Your task to perform on an android device: clear history in the chrome app Image 0: 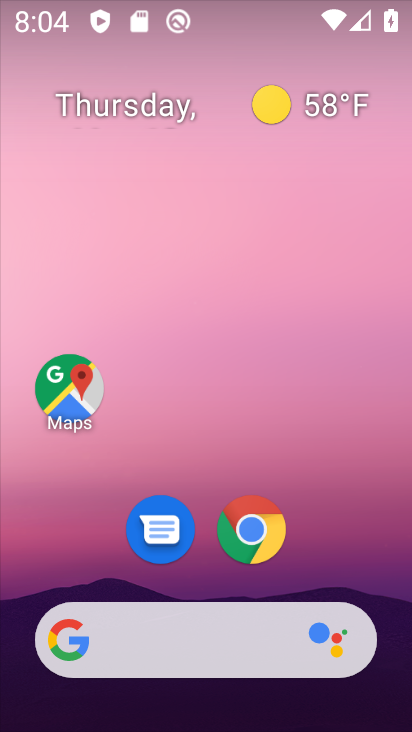
Step 0: click (250, 533)
Your task to perform on an android device: clear history in the chrome app Image 1: 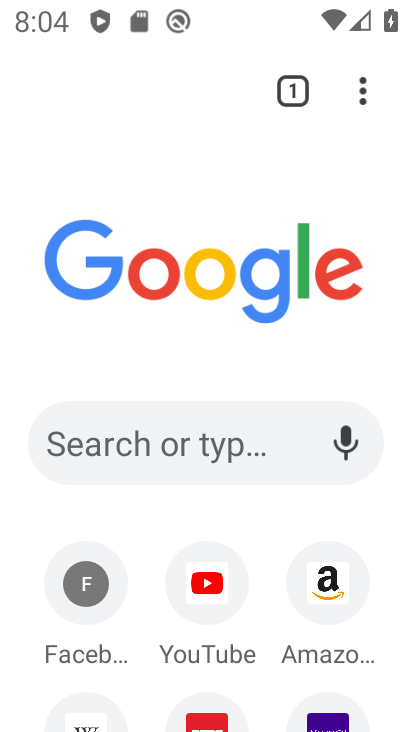
Step 1: click (356, 97)
Your task to perform on an android device: clear history in the chrome app Image 2: 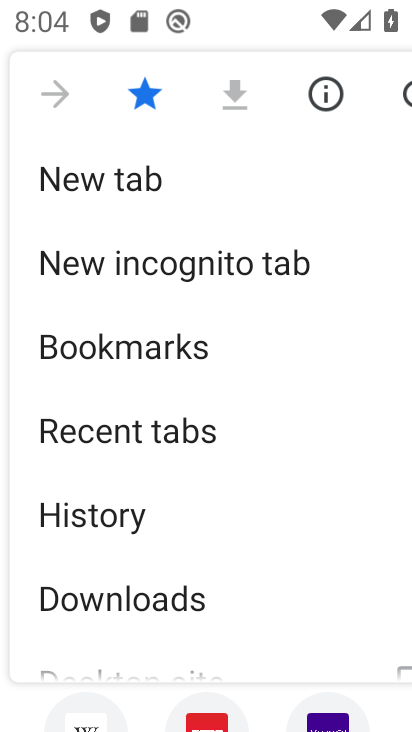
Step 2: drag from (263, 624) to (252, 553)
Your task to perform on an android device: clear history in the chrome app Image 3: 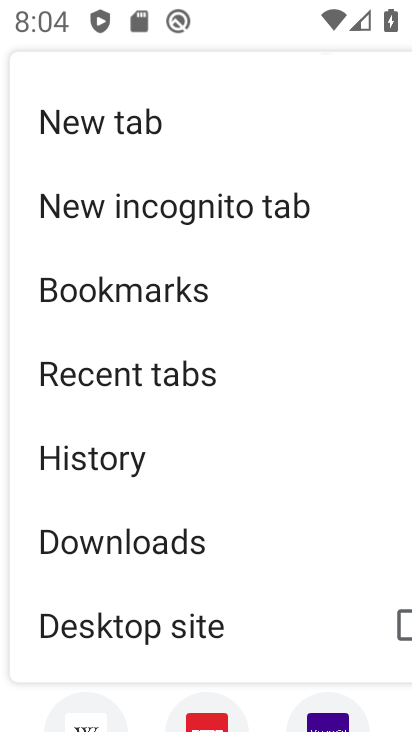
Step 3: click (104, 466)
Your task to perform on an android device: clear history in the chrome app Image 4: 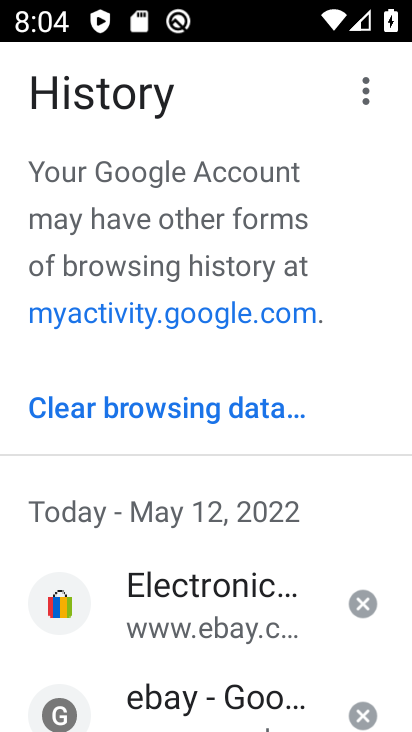
Step 4: click (179, 415)
Your task to perform on an android device: clear history in the chrome app Image 5: 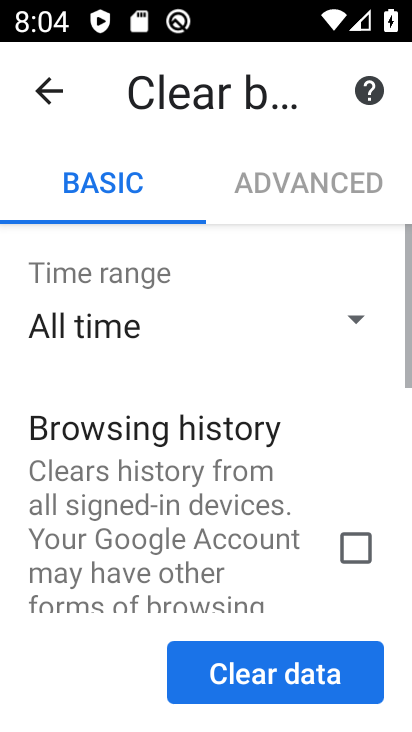
Step 5: click (352, 551)
Your task to perform on an android device: clear history in the chrome app Image 6: 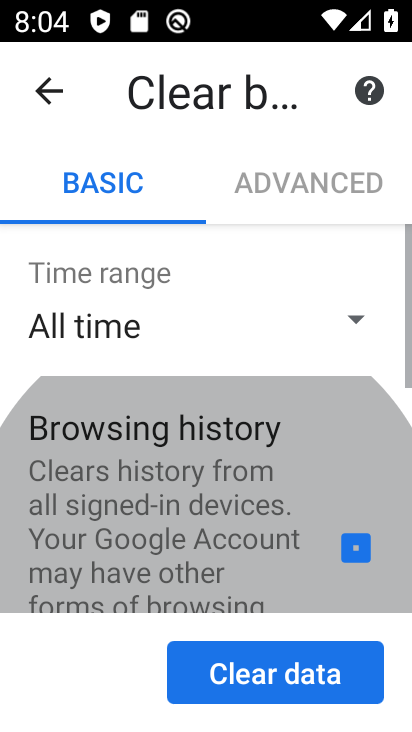
Step 6: drag from (288, 558) to (253, 153)
Your task to perform on an android device: clear history in the chrome app Image 7: 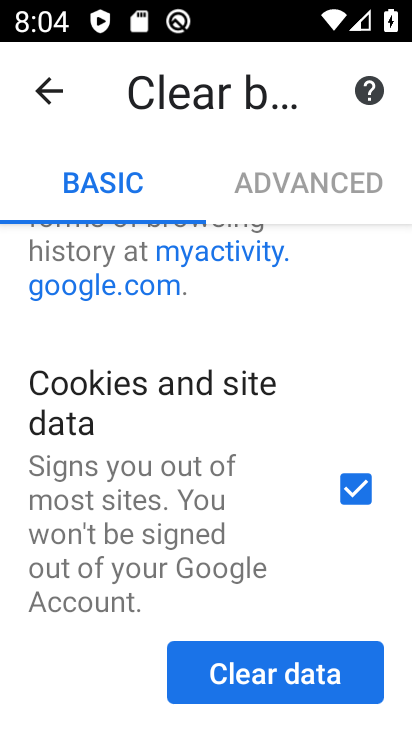
Step 7: click (352, 493)
Your task to perform on an android device: clear history in the chrome app Image 8: 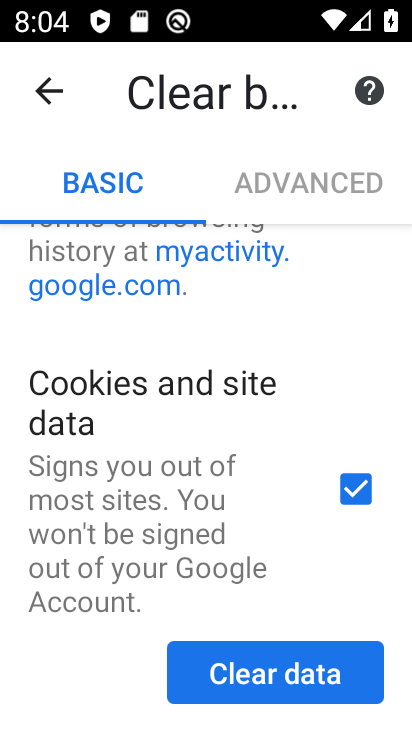
Step 8: drag from (246, 535) to (250, 199)
Your task to perform on an android device: clear history in the chrome app Image 9: 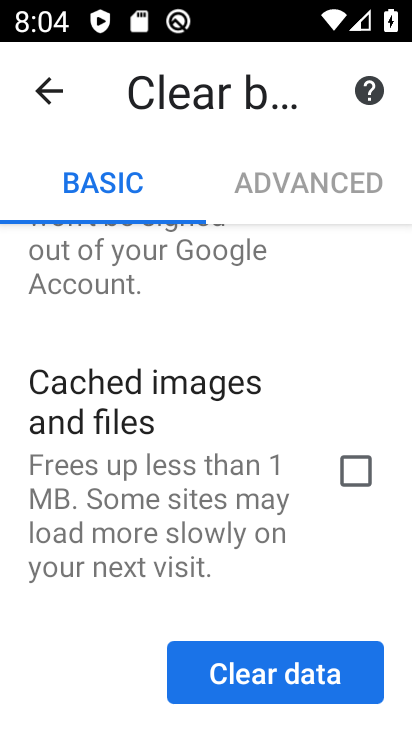
Step 9: click (303, 679)
Your task to perform on an android device: clear history in the chrome app Image 10: 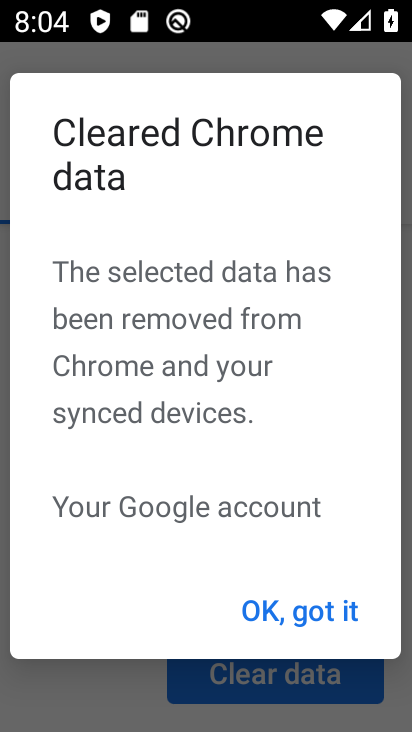
Step 10: click (314, 596)
Your task to perform on an android device: clear history in the chrome app Image 11: 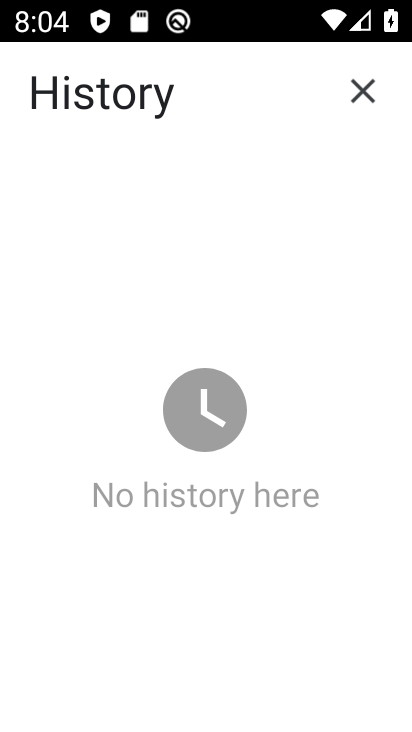
Step 11: task complete